Your task to perform on an android device: uninstall "Google Play Games" Image 0: 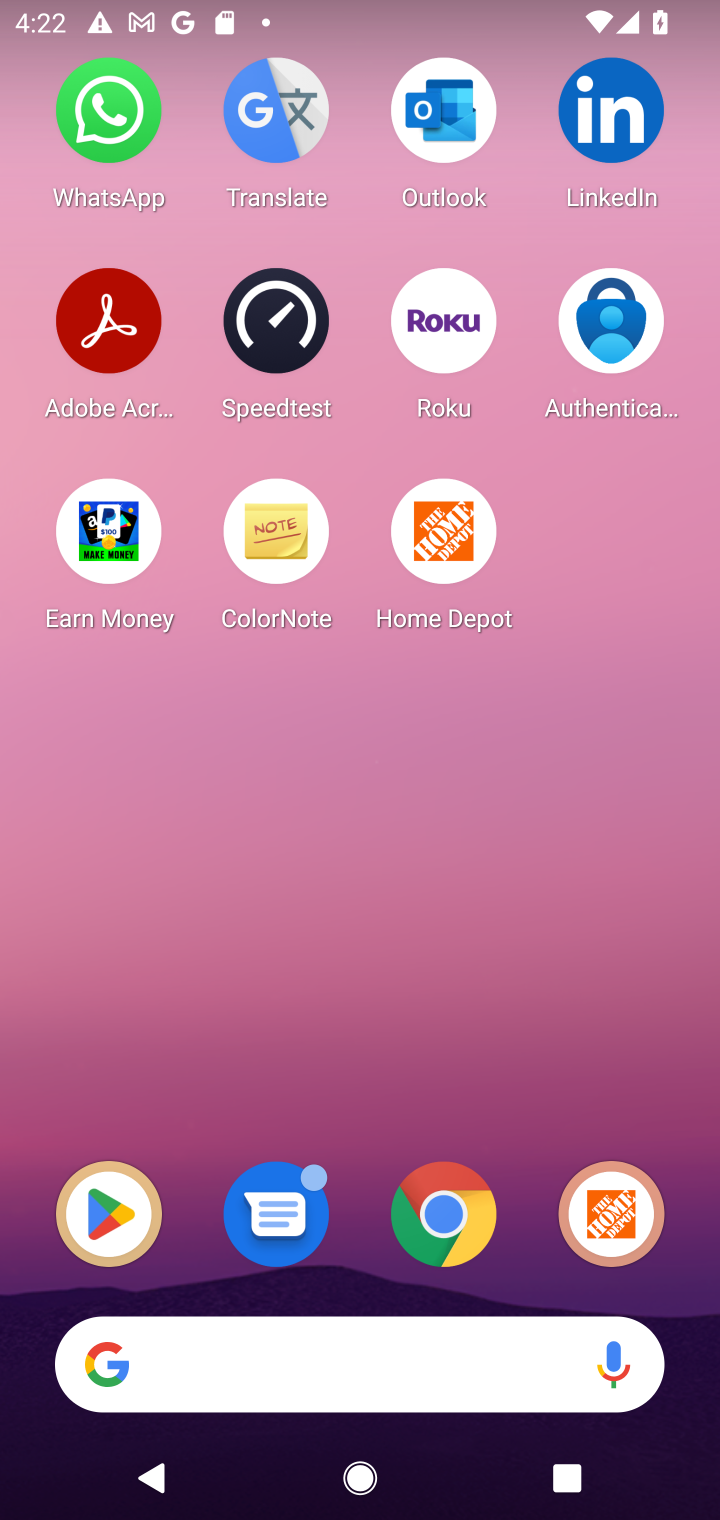
Step 0: click (97, 1215)
Your task to perform on an android device: uninstall "Google Play Games" Image 1: 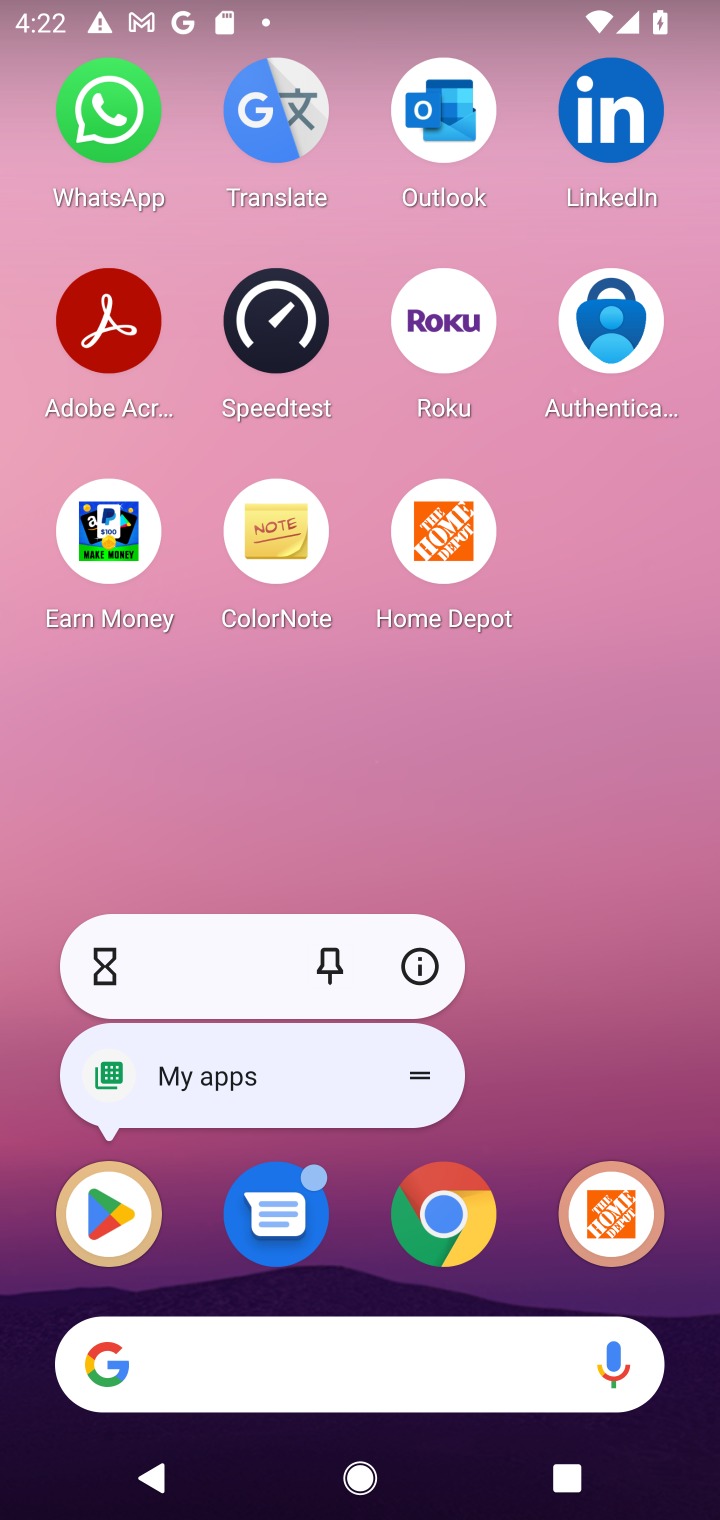
Step 1: click (93, 1215)
Your task to perform on an android device: uninstall "Google Play Games" Image 2: 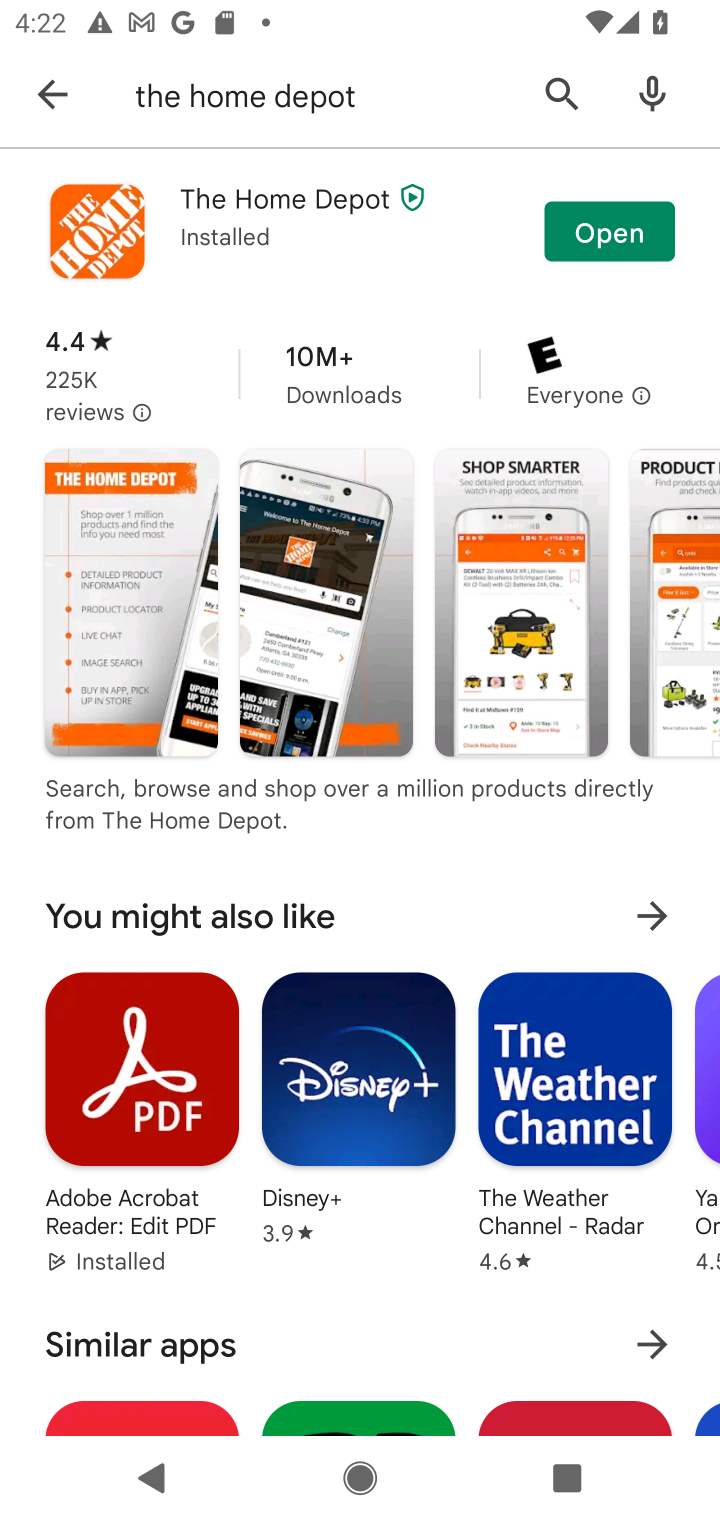
Step 2: click (312, 101)
Your task to perform on an android device: uninstall "Google Play Games" Image 3: 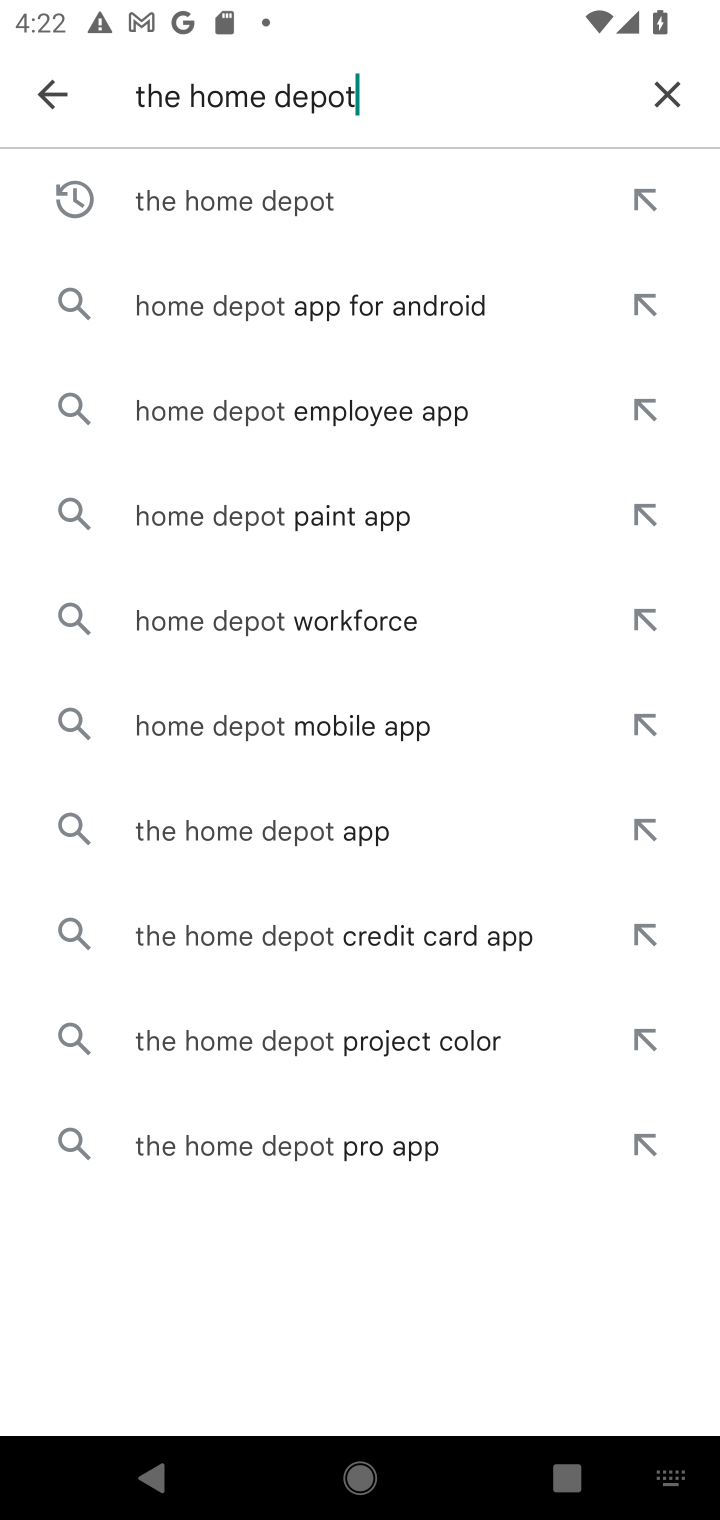
Step 3: click (649, 90)
Your task to perform on an android device: uninstall "Google Play Games" Image 4: 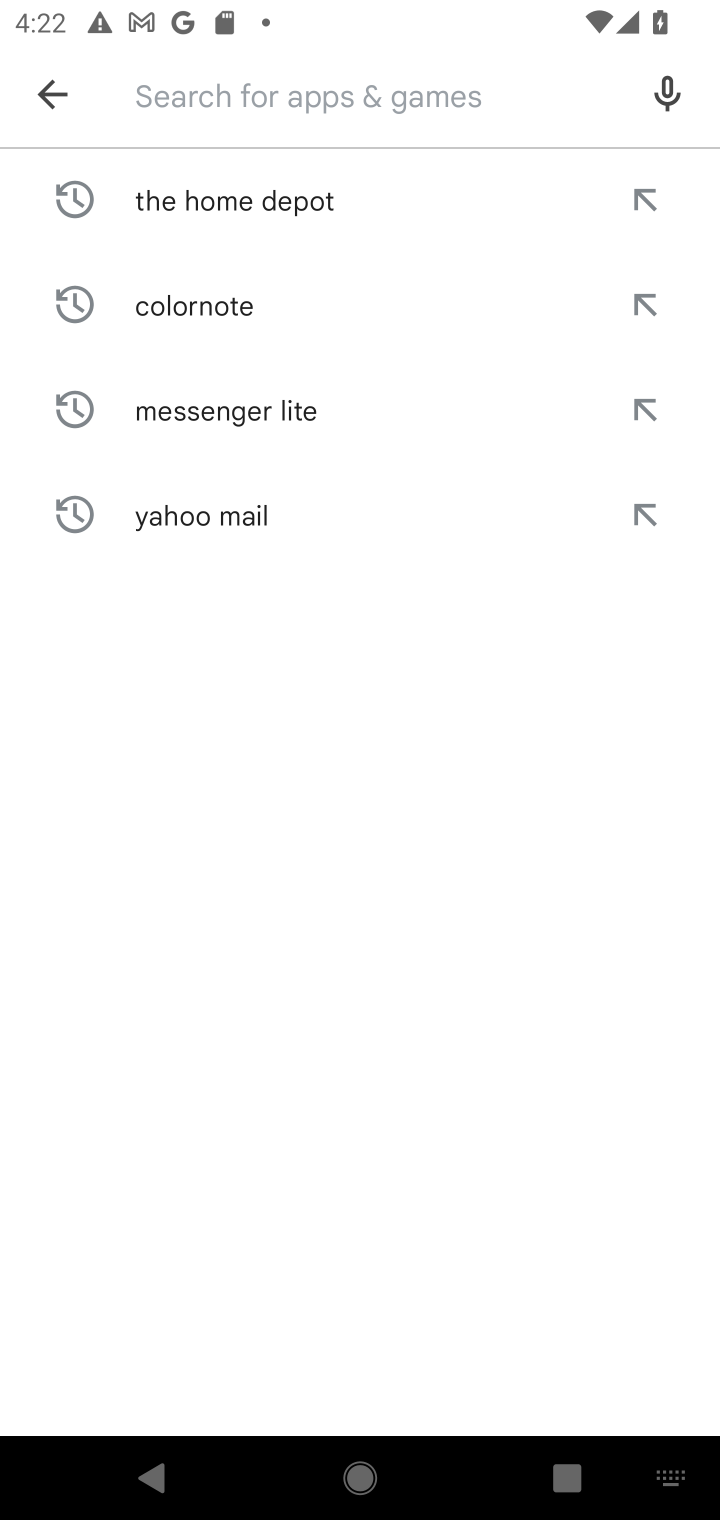
Step 4: type "Google Play Games"
Your task to perform on an android device: uninstall "Google Play Games" Image 5: 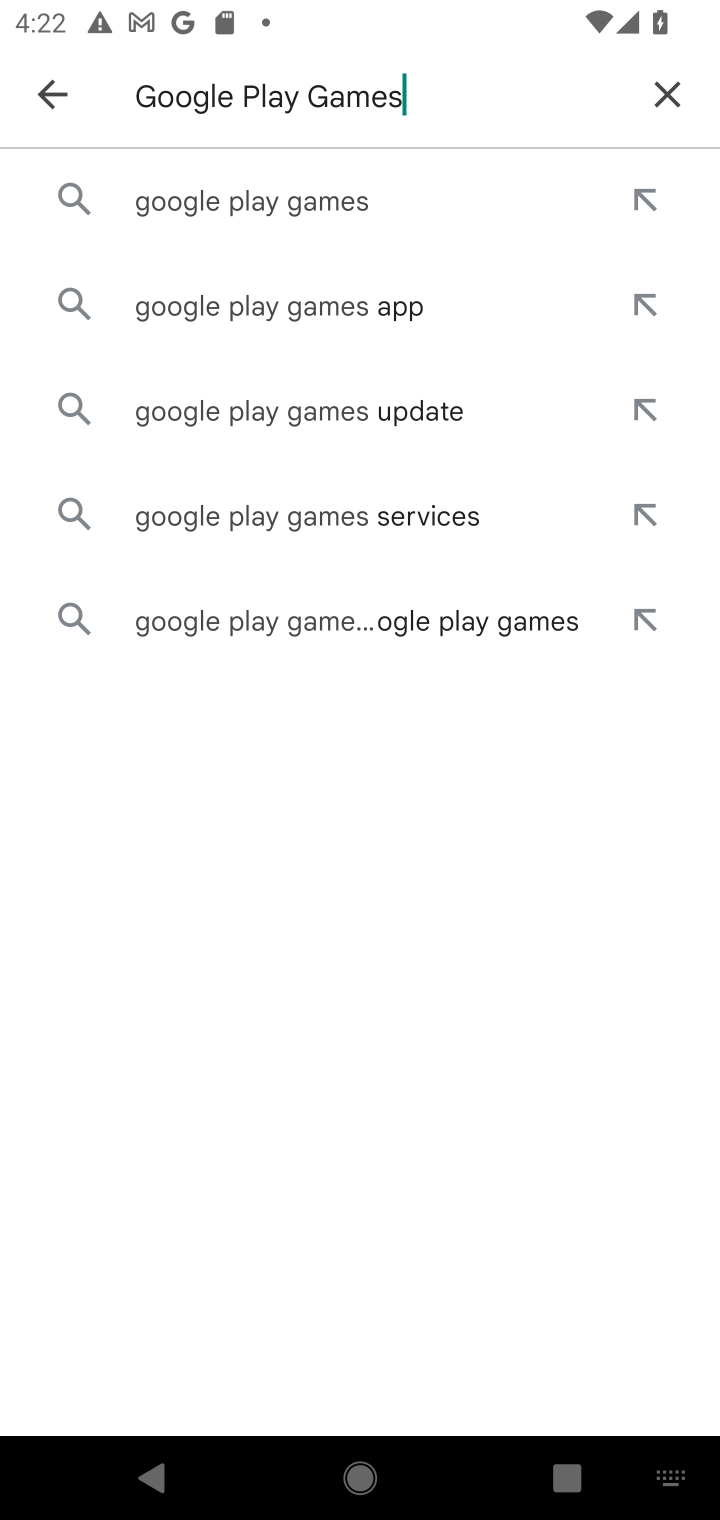
Step 5: click (371, 199)
Your task to perform on an android device: uninstall "Google Play Games" Image 6: 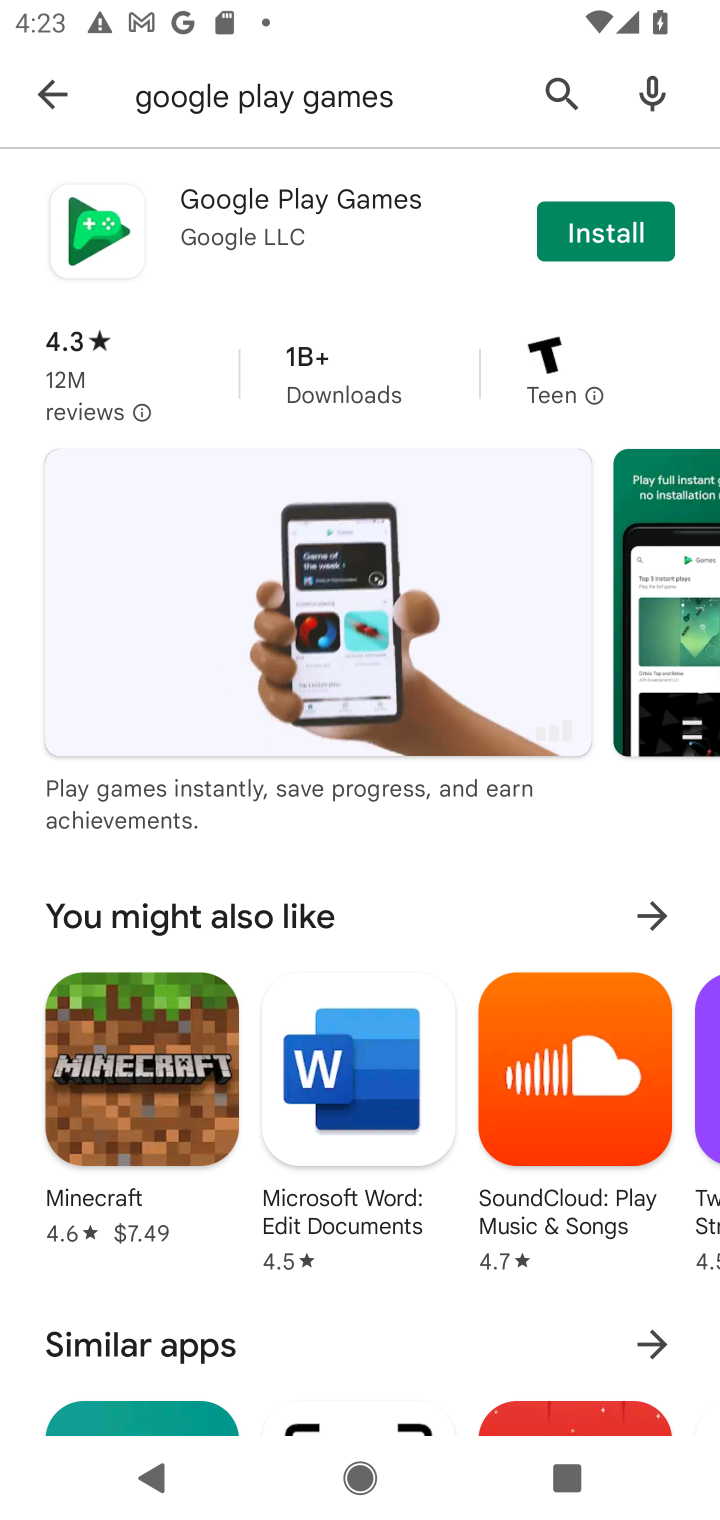
Step 6: task complete